Your task to perform on an android device: find which apps use the phone's location Image 0: 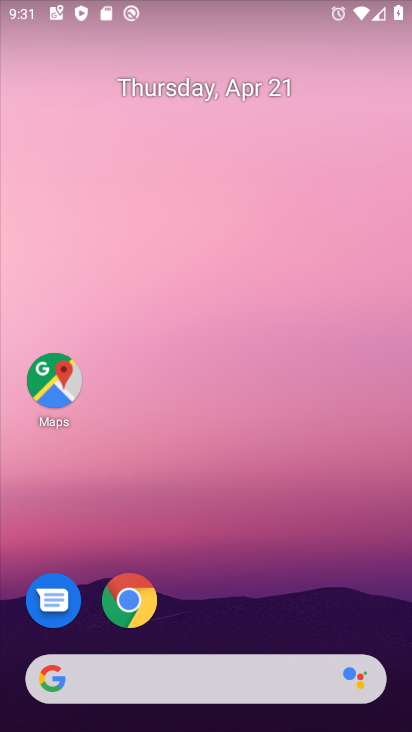
Step 0: drag from (216, 594) to (233, 111)
Your task to perform on an android device: find which apps use the phone's location Image 1: 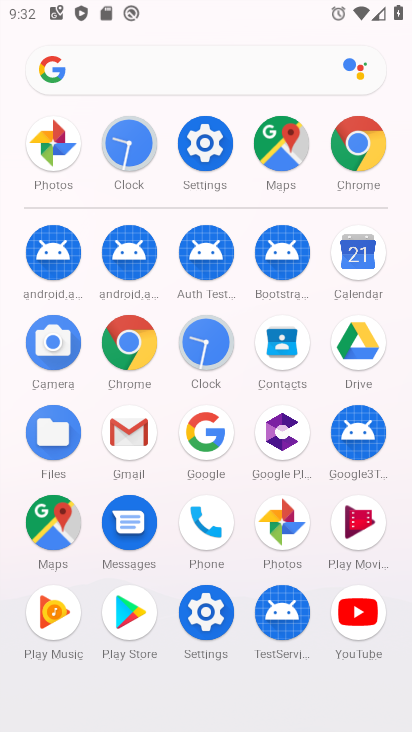
Step 1: click (205, 611)
Your task to perform on an android device: find which apps use the phone's location Image 2: 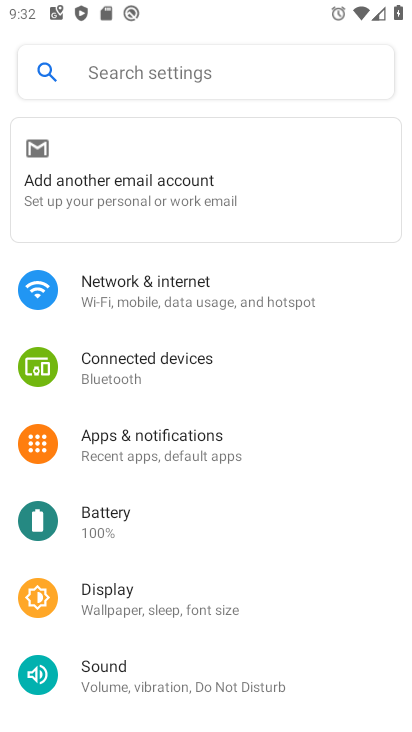
Step 2: drag from (219, 612) to (289, 10)
Your task to perform on an android device: find which apps use the phone's location Image 3: 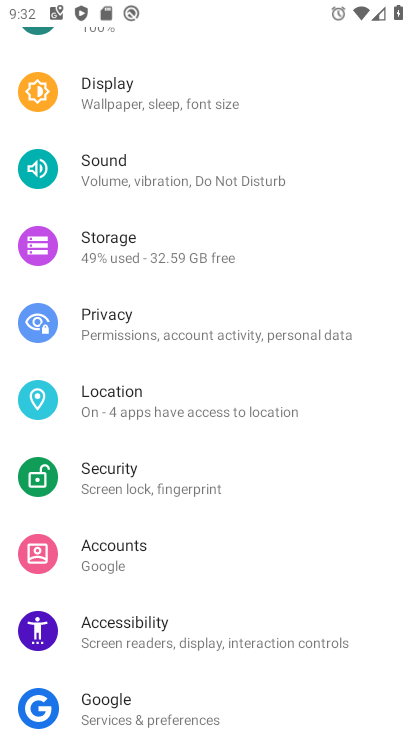
Step 3: click (127, 400)
Your task to perform on an android device: find which apps use the phone's location Image 4: 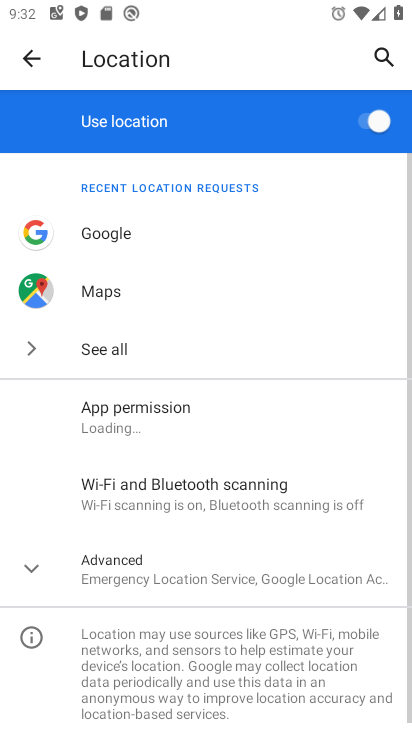
Step 4: click (167, 415)
Your task to perform on an android device: find which apps use the phone's location Image 5: 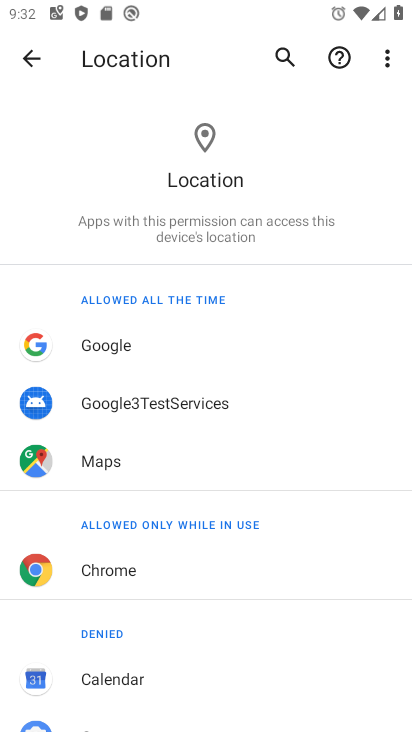
Step 5: task complete